Your task to perform on an android device: Open the stopwatch Image 0: 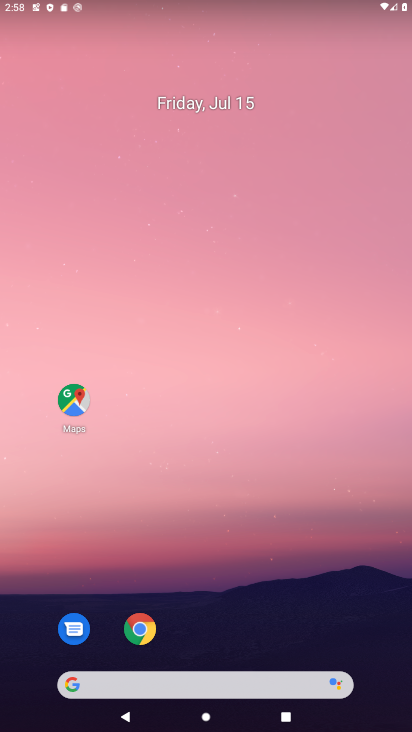
Step 0: drag from (234, 653) to (257, 144)
Your task to perform on an android device: Open the stopwatch Image 1: 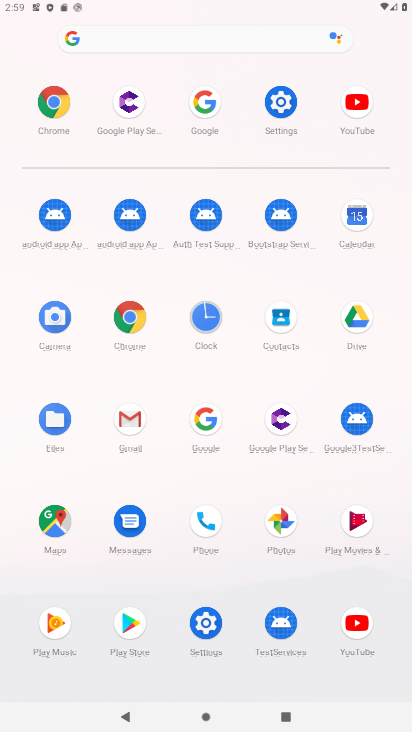
Step 1: click (208, 318)
Your task to perform on an android device: Open the stopwatch Image 2: 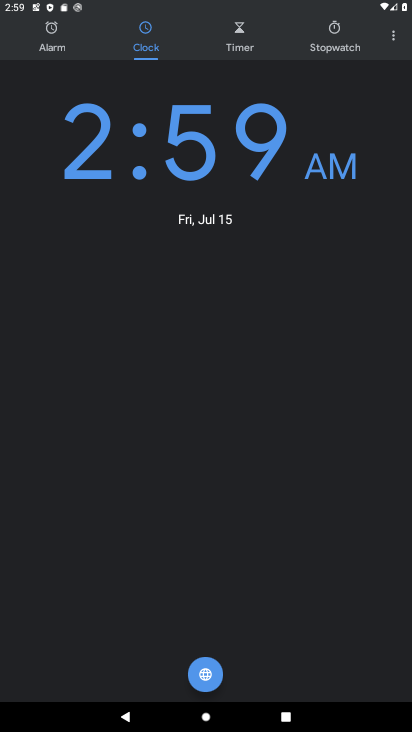
Step 2: click (335, 60)
Your task to perform on an android device: Open the stopwatch Image 3: 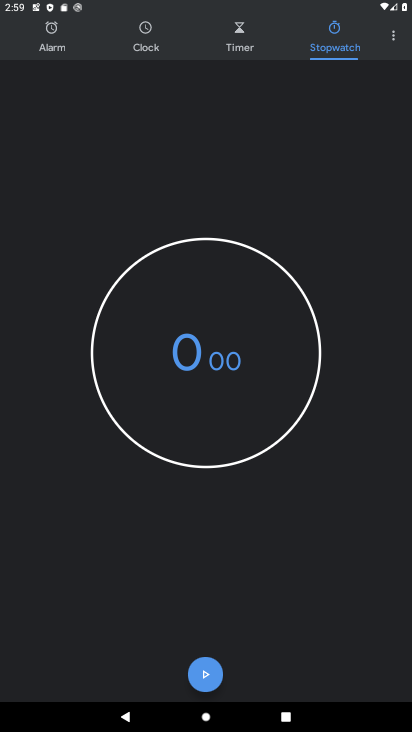
Step 3: task complete